Your task to perform on an android device: uninstall "Firefox Browser" Image 0: 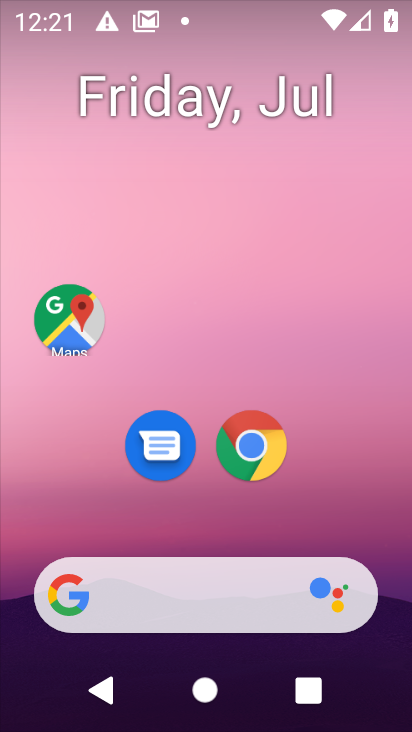
Step 0: drag from (219, 526) to (183, 5)
Your task to perform on an android device: uninstall "Firefox Browser" Image 1: 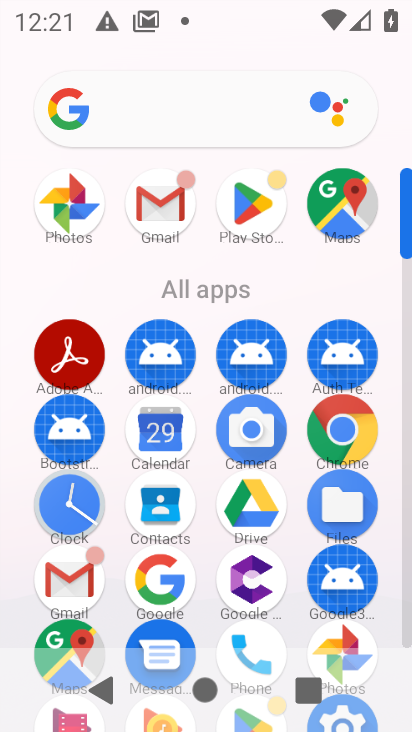
Step 1: click (256, 201)
Your task to perform on an android device: uninstall "Firefox Browser" Image 2: 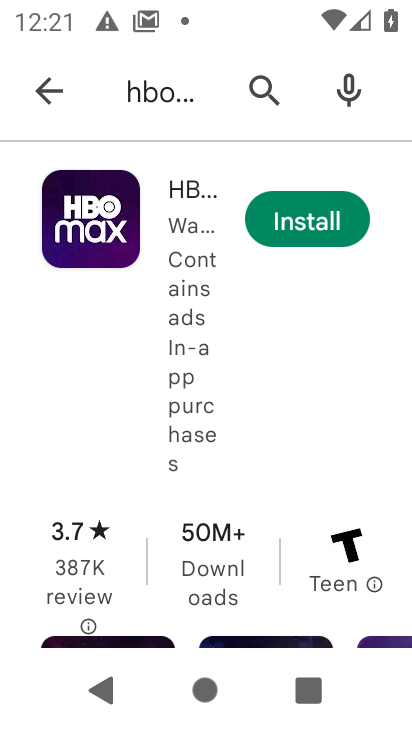
Step 2: click (155, 90)
Your task to perform on an android device: uninstall "Firefox Browser" Image 3: 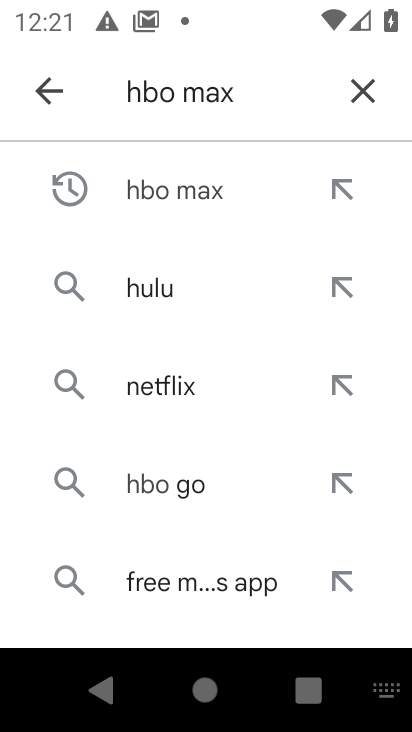
Step 3: click (352, 87)
Your task to perform on an android device: uninstall "Firefox Browser" Image 4: 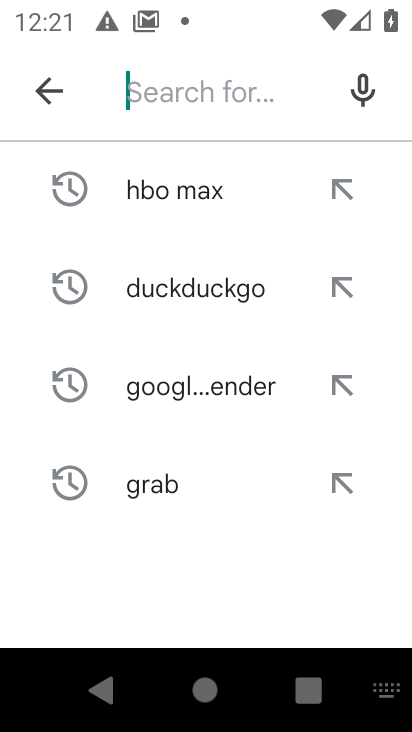
Step 4: type "firefox browser"
Your task to perform on an android device: uninstall "Firefox Browser" Image 5: 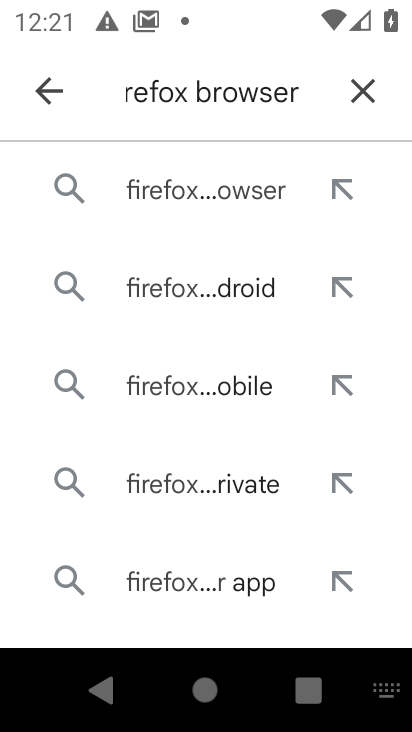
Step 5: click (164, 186)
Your task to perform on an android device: uninstall "Firefox Browser" Image 6: 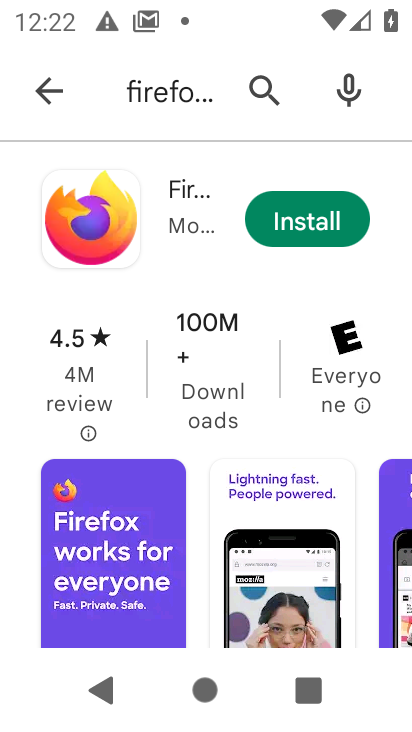
Step 6: task complete